Your task to perform on an android device: Open Amazon Image 0: 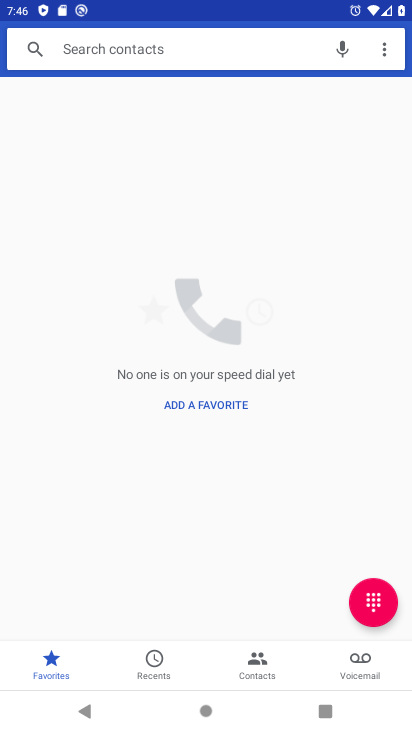
Step 0: press home button
Your task to perform on an android device: Open Amazon Image 1: 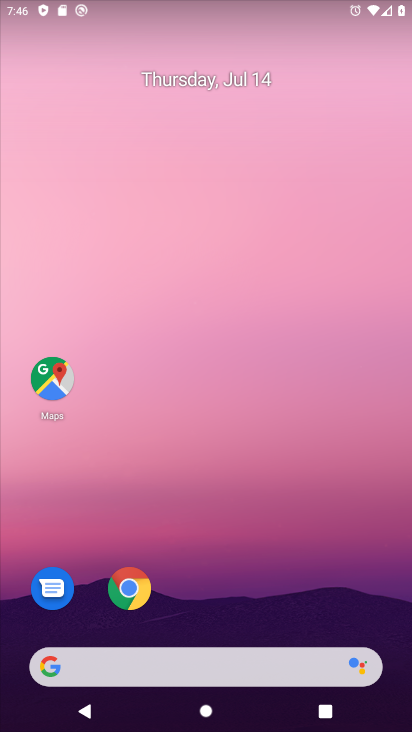
Step 1: click (106, 667)
Your task to perform on an android device: Open Amazon Image 2: 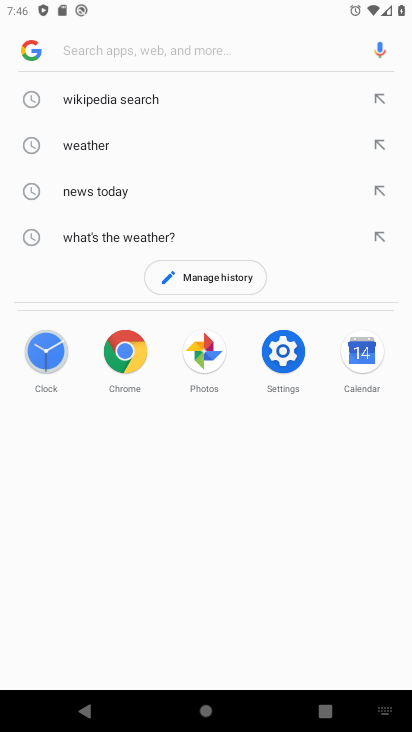
Step 2: type "Amazon"
Your task to perform on an android device: Open Amazon Image 3: 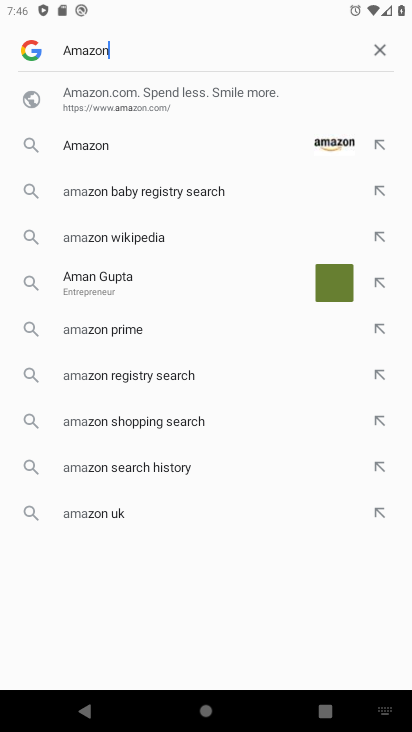
Step 3: type ""
Your task to perform on an android device: Open Amazon Image 4: 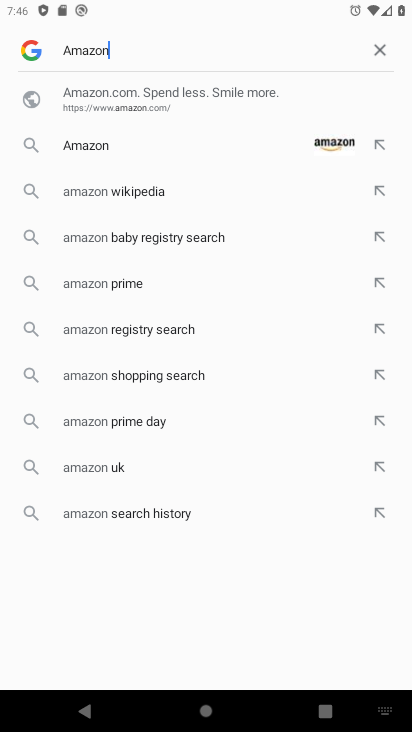
Step 4: click (86, 139)
Your task to perform on an android device: Open Amazon Image 5: 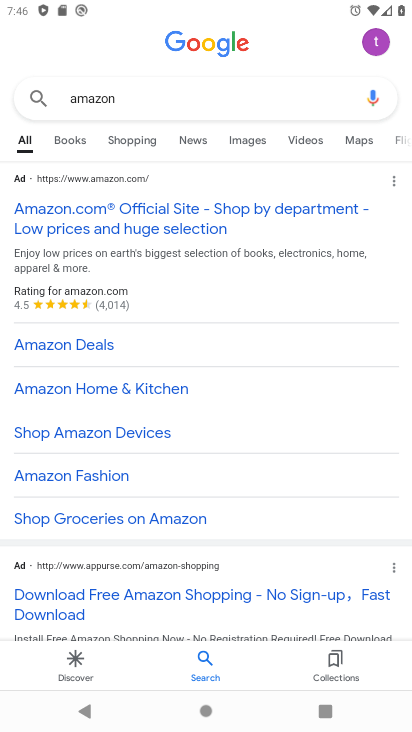
Step 5: task complete